Your task to perform on an android device: Go to Yahoo.com Image 0: 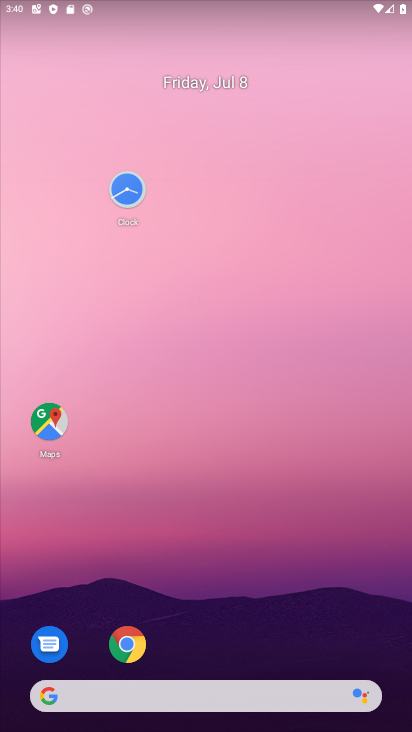
Step 0: drag from (275, 656) to (158, 241)
Your task to perform on an android device: Go to Yahoo.com Image 1: 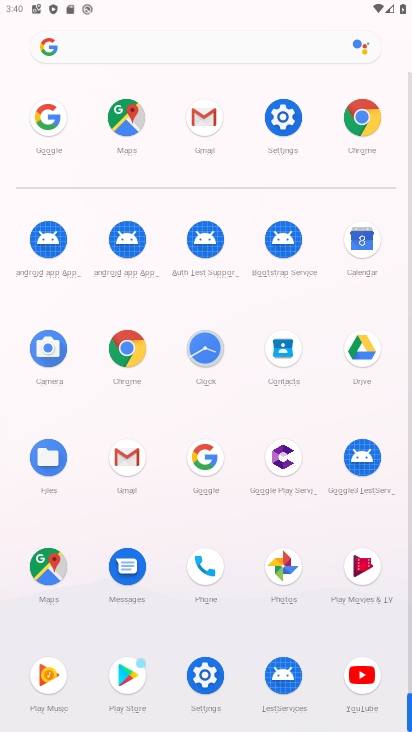
Step 1: drag from (164, 348) to (142, 188)
Your task to perform on an android device: Go to Yahoo.com Image 2: 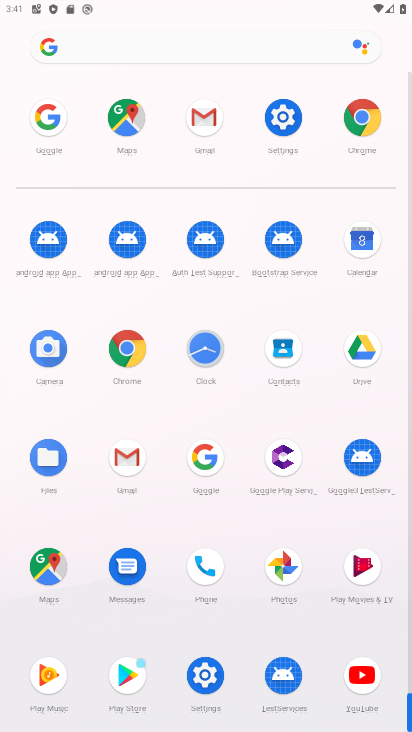
Step 2: click (124, 353)
Your task to perform on an android device: Go to Yahoo.com Image 3: 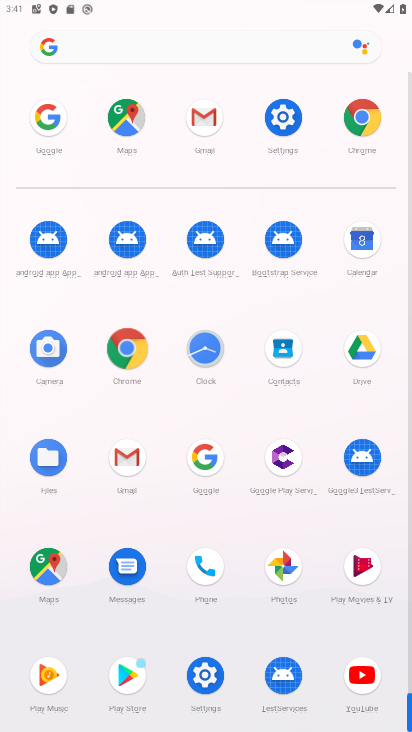
Step 3: click (124, 353)
Your task to perform on an android device: Go to Yahoo.com Image 4: 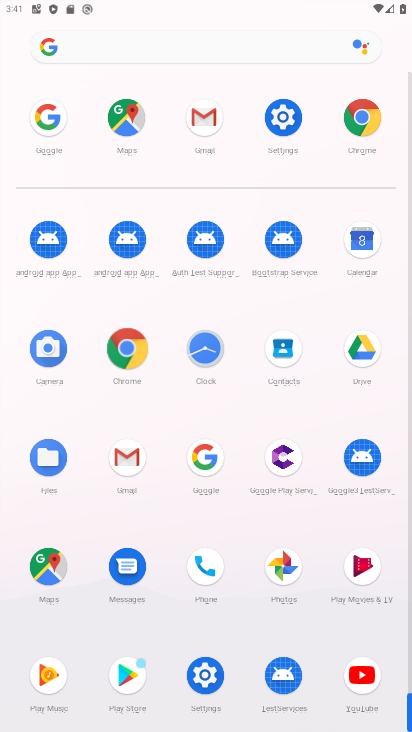
Step 4: click (120, 351)
Your task to perform on an android device: Go to Yahoo.com Image 5: 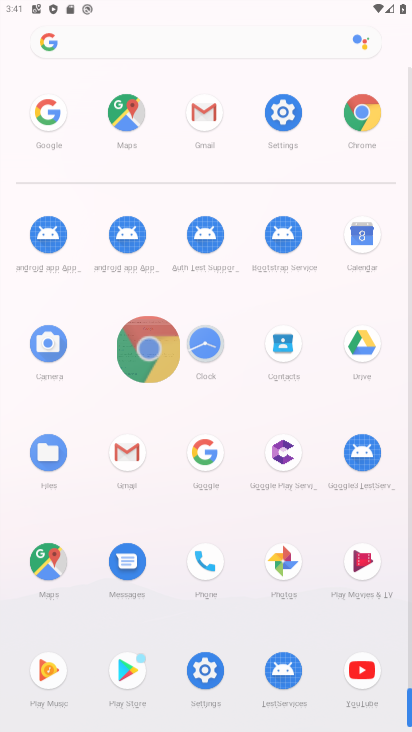
Step 5: click (120, 341)
Your task to perform on an android device: Go to Yahoo.com Image 6: 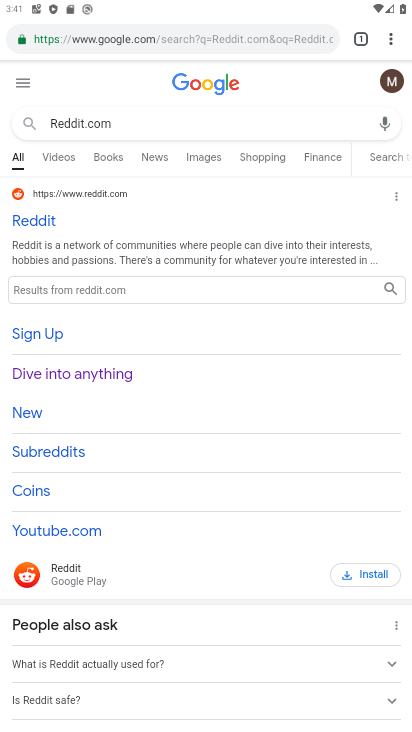
Step 6: click (120, 341)
Your task to perform on an android device: Go to Yahoo.com Image 7: 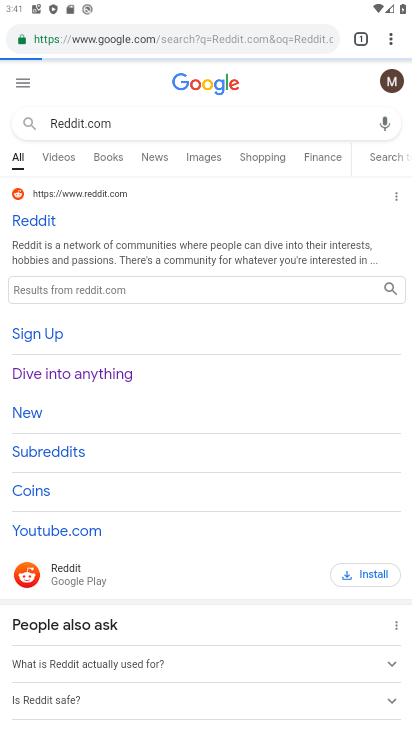
Step 7: click (127, 333)
Your task to perform on an android device: Go to Yahoo.com Image 8: 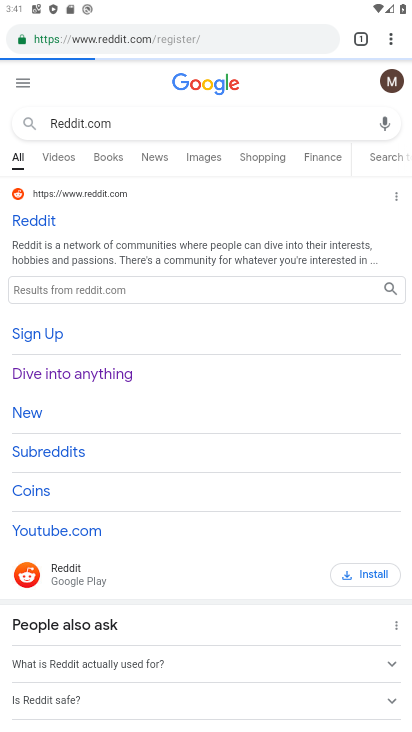
Step 8: click (126, 332)
Your task to perform on an android device: Go to Yahoo.com Image 9: 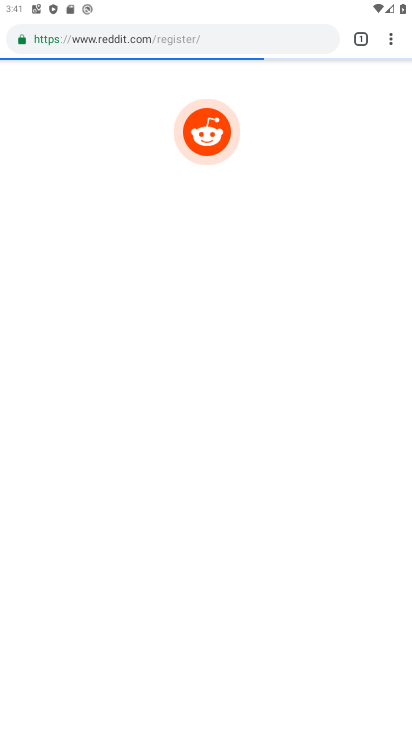
Step 9: drag from (362, 89) to (287, 169)
Your task to perform on an android device: Go to Yahoo.com Image 10: 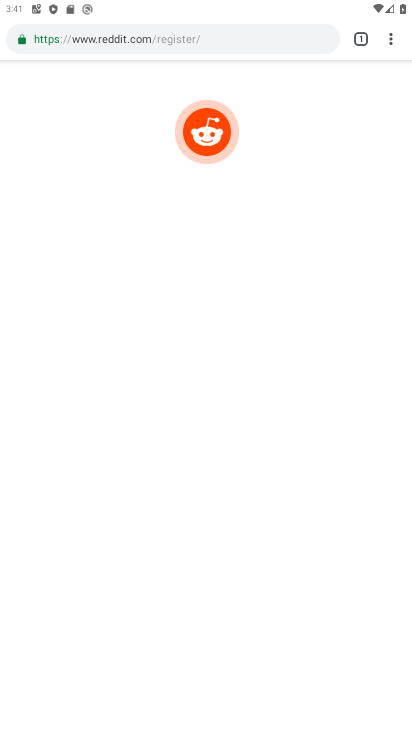
Step 10: click (386, 32)
Your task to perform on an android device: Go to Yahoo.com Image 11: 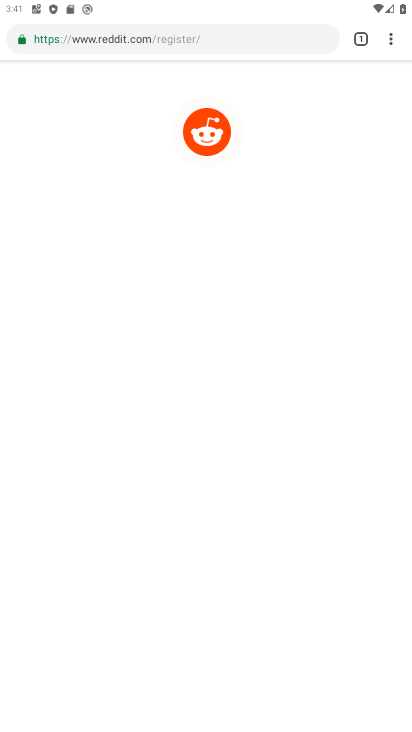
Step 11: click (387, 32)
Your task to perform on an android device: Go to Yahoo.com Image 12: 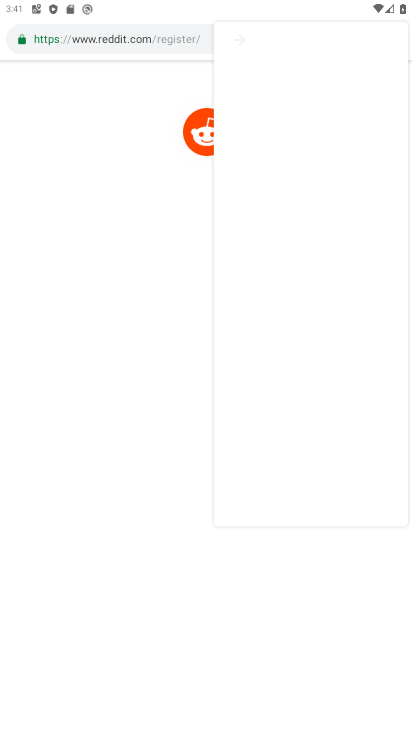
Step 12: click (394, 34)
Your task to perform on an android device: Go to Yahoo.com Image 13: 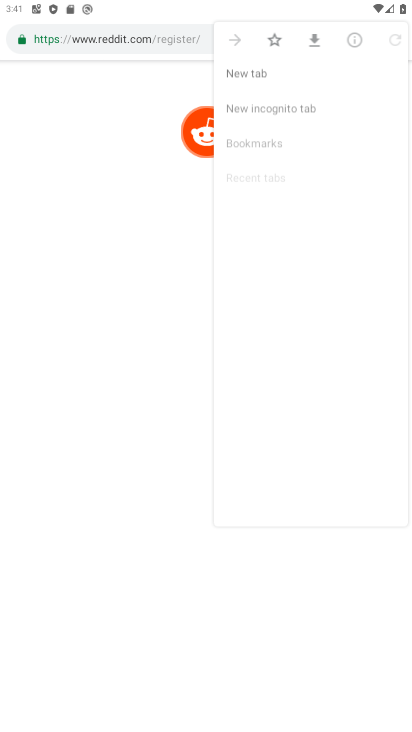
Step 13: click (381, 46)
Your task to perform on an android device: Go to Yahoo.com Image 14: 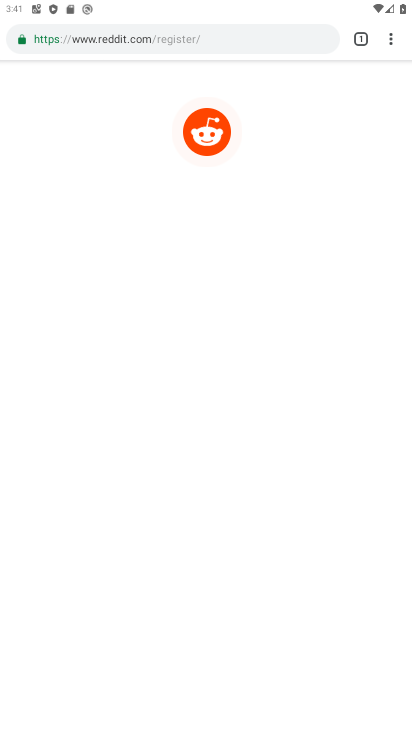
Step 14: click (377, 47)
Your task to perform on an android device: Go to Yahoo.com Image 15: 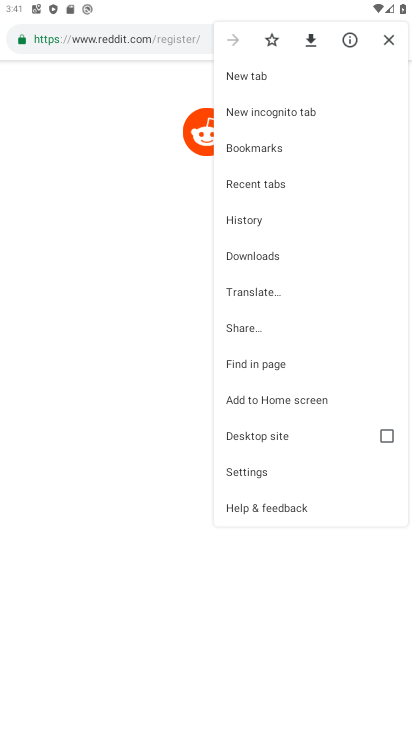
Step 15: click (247, 84)
Your task to perform on an android device: Go to Yahoo.com Image 16: 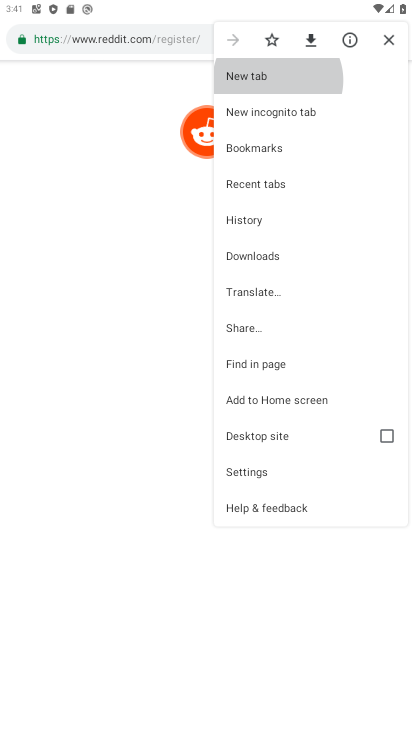
Step 16: click (247, 84)
Your task to perform on an android device: Go to Yahoo.com Image 17: 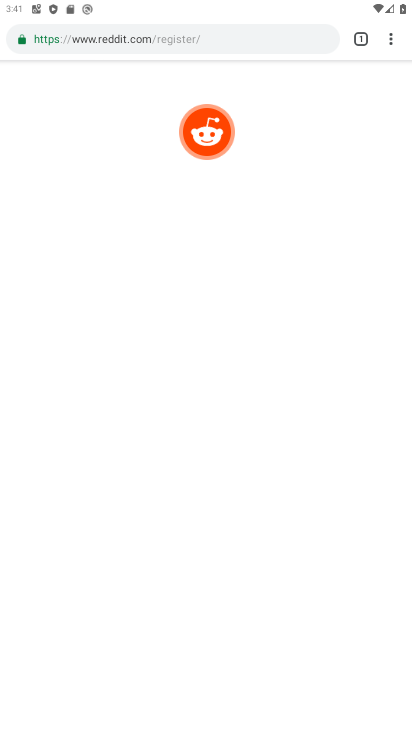
Step 17: click (248, 84)
Your task to perform on an android device: Go to Yahoo.com Image 18: 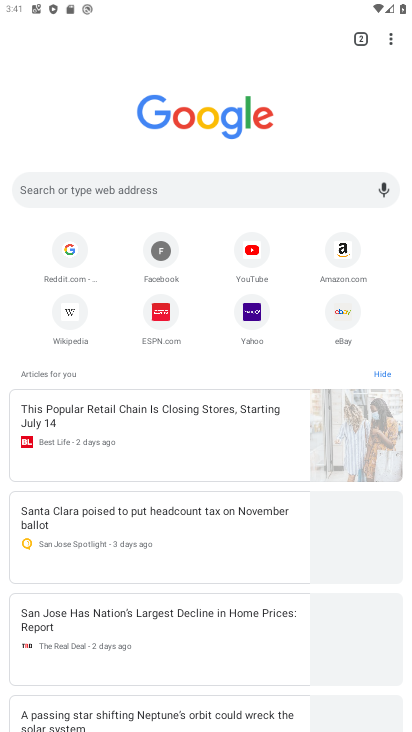
Step 18: click (250, 77)
Your task to perform on an android device: Go to Yahoo.com Image 19: 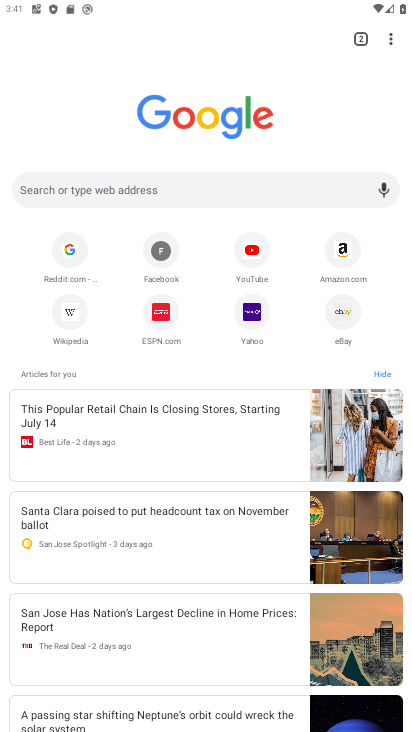
Step 19: click (248, 313)
Your task to perform on an android device: Go to Yahoo.com Image 20: 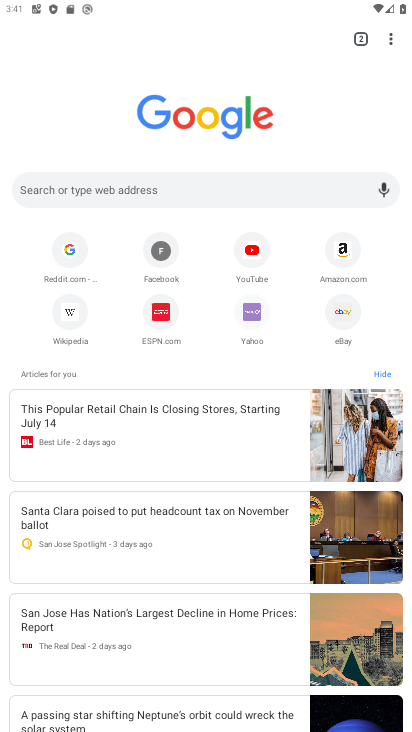
Step 20: click (248, 313)
Your task to perform on an android device: Go to Yahoo.com Image 21: 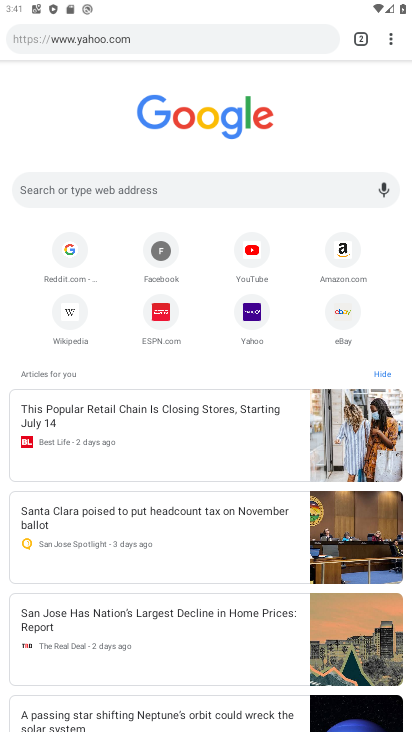
Step 21: click (248, 313)
Your task to perform on an android device: Go to Yahoo.com Image 22: 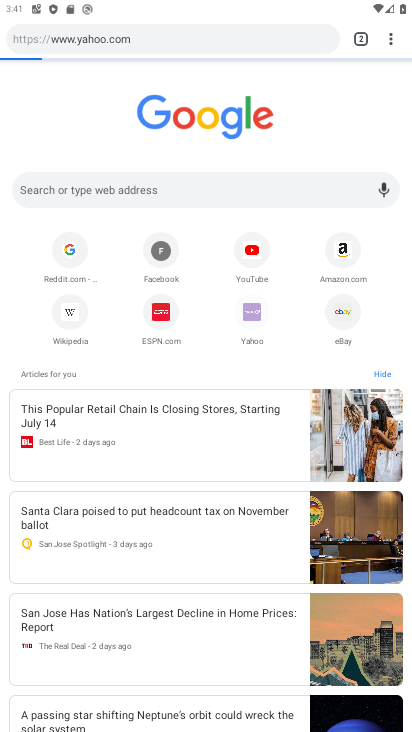
Step 22: click (253, 309)
Your task to perform on an android device: Go to Yahoo.com Image 23: 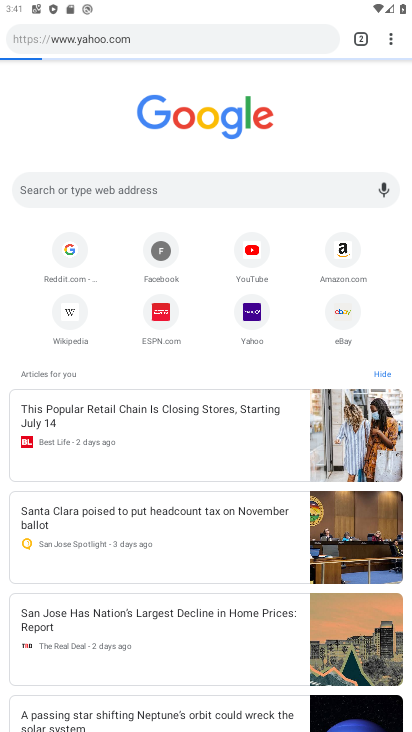
Step 23: click (255, 307)
Your task to perform on an android device: Go to Yahoo.com Image 24: 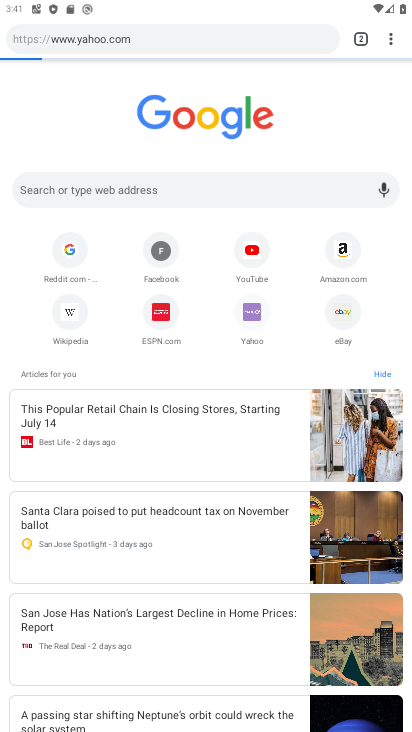
Step 24: click (253, 302)
Your task to perform on an android device: Go to Yahoo.com Image 25: 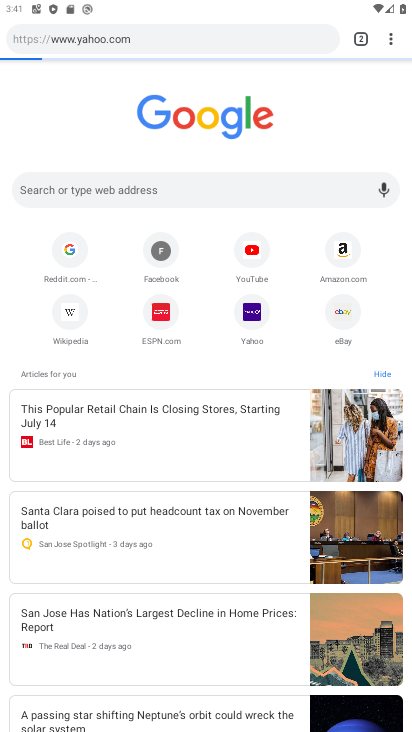
Step 25: click (256, 299)
Your task to perform on an android device: Go to Yahoo.com Image 26: 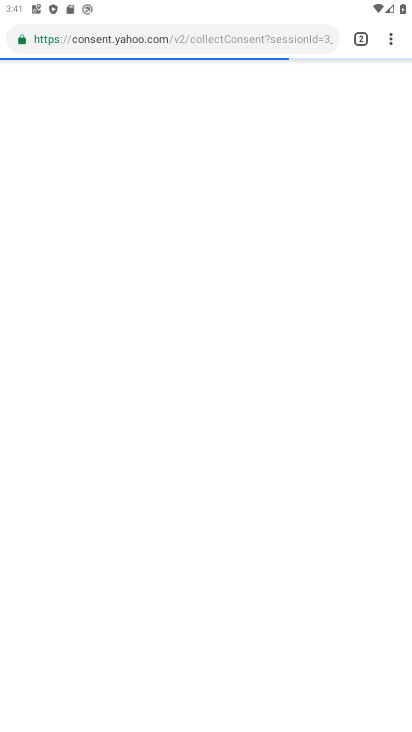
Step 26: click (256, 302)
Your task to perform on an android device: Go to Yahoo.com Image 27: 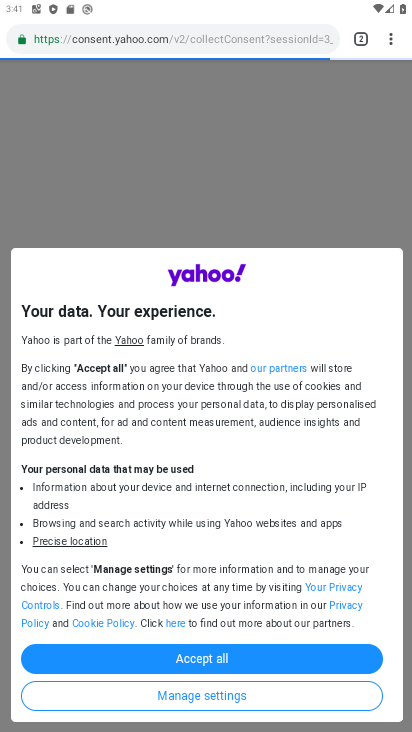
Step 27: click (256, 302)
Your task to perform on an android device: Go to Yahoo.com Image 28: 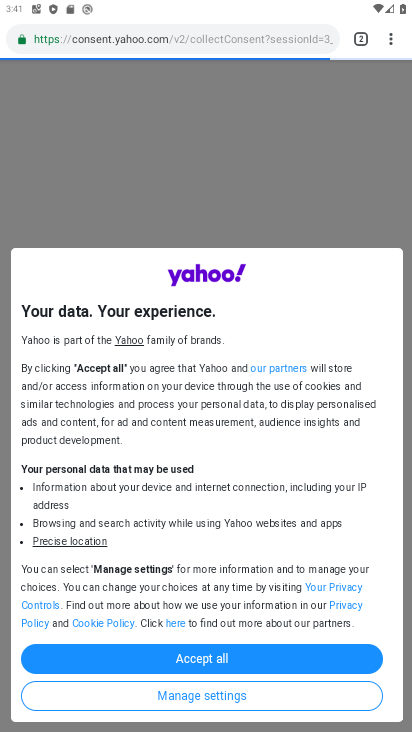
Step 28: click (253, 306)
Your task to perform on an android device: Go to Yahoo.com Image 29: 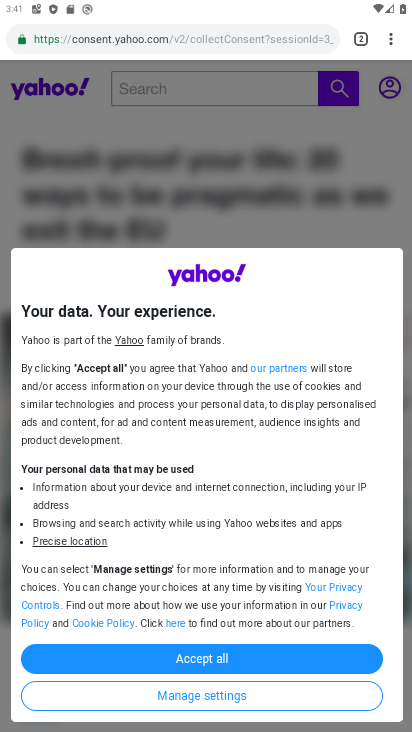
Step 29: task complete